Your task to perform on an android device: toggle airplane mode Image 0: 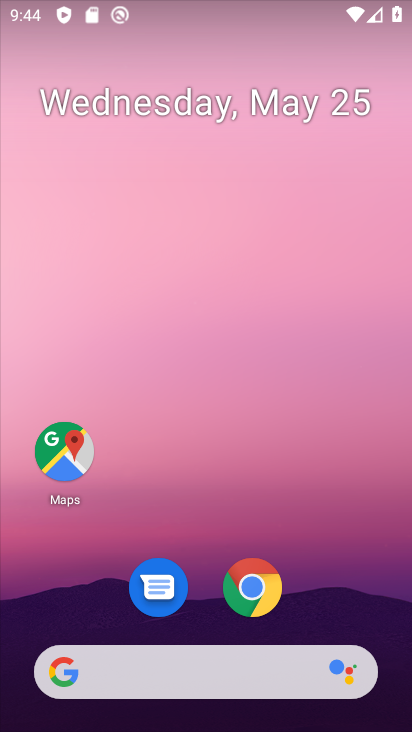
Step 0: drag from (212, 602) to (277, 25)
Your task to perform on an android device: toggle airplane mode Image 1: 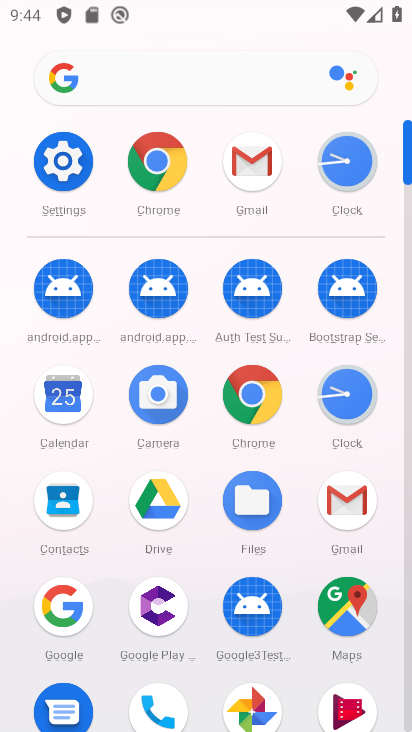
Step 1: click (74, 163)
Your task to perform on an android device: toggle airplane mode Image 2: 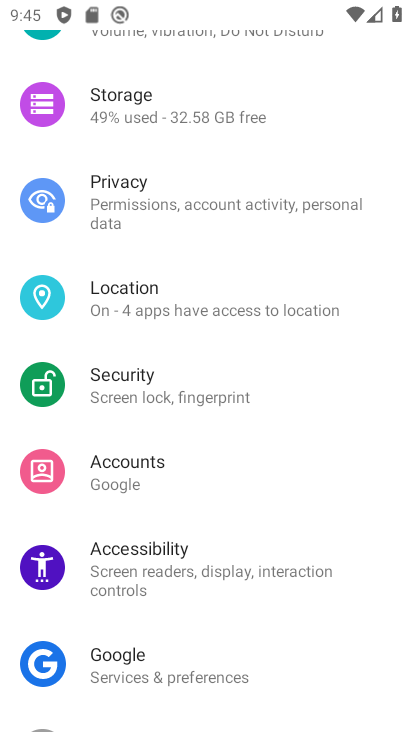
Step 2: drag from (187, 203) to (193, 539)
Your task to perform on an android device: toggle airplane mode Image 3: 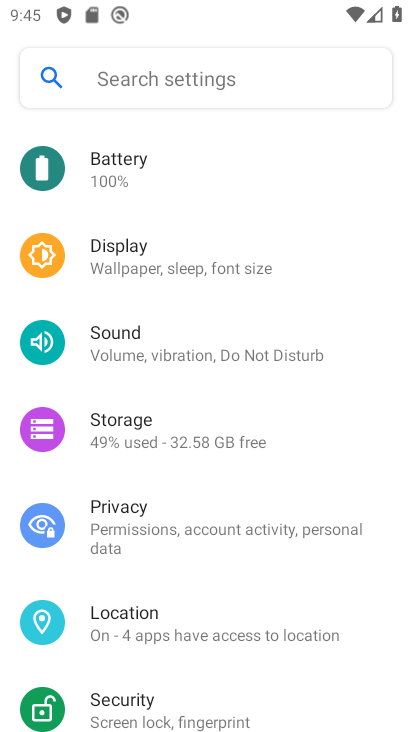
Step 3: drag from (149, 207) to (158, 637)
Your task to perform on an android device: toggle airplane mode Image 4: 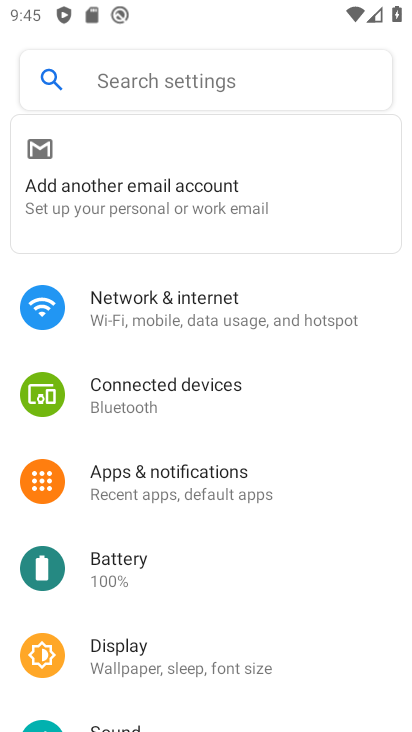
Step 4: click (143, 331)
Your task to perform on an android device: toggle airplane mode Image 5: 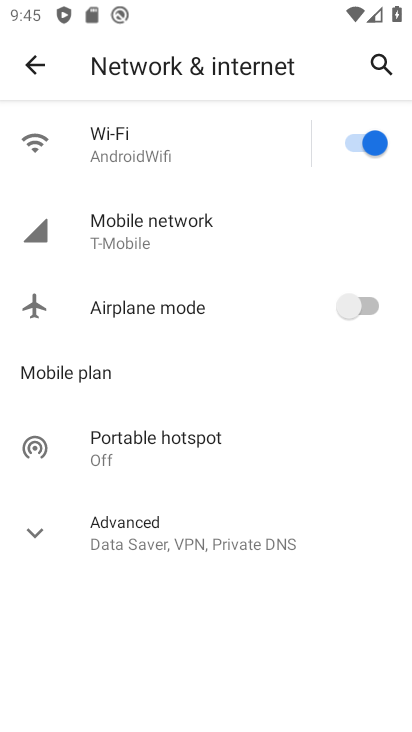
Step 5: click (376, 298)
Your task to perform on an android device: toggle airplane mode Image 6: 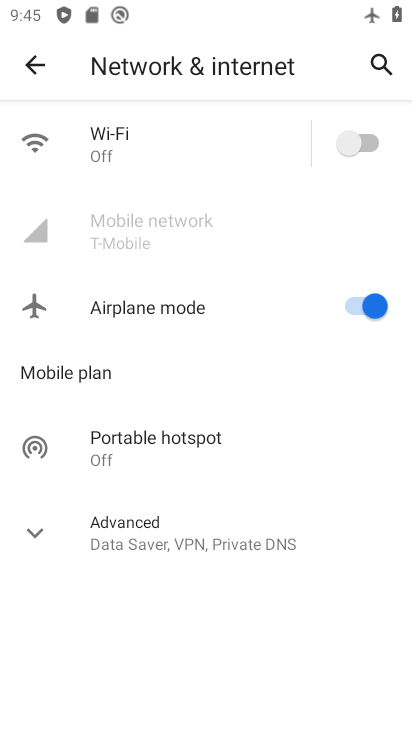
Step 6: task complete